Your task to perform on an android device: Go to location settings Image 0: 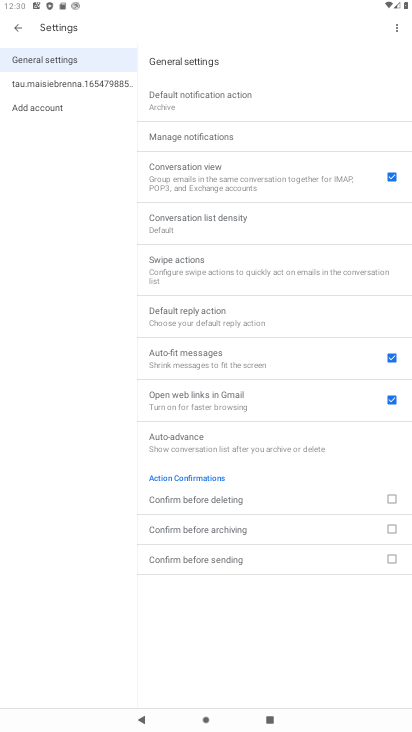
Step 0: press home button
Your task to perform on an android device: Go to location settings Image 1: 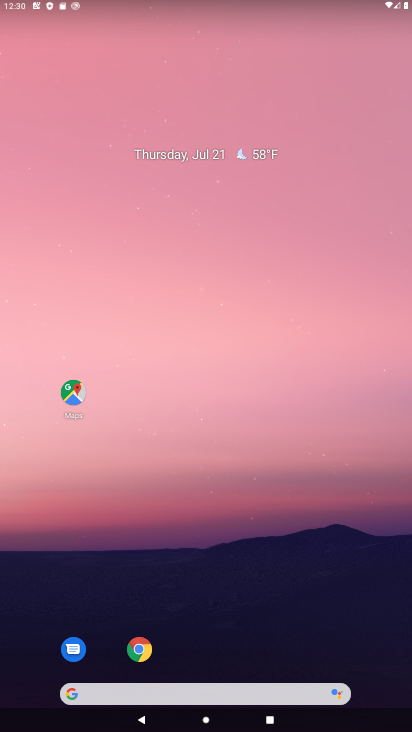
Step 1: drag from (372, 647) to (338, 139)
Your task to perform on an android device: Go to location settings Image 2: 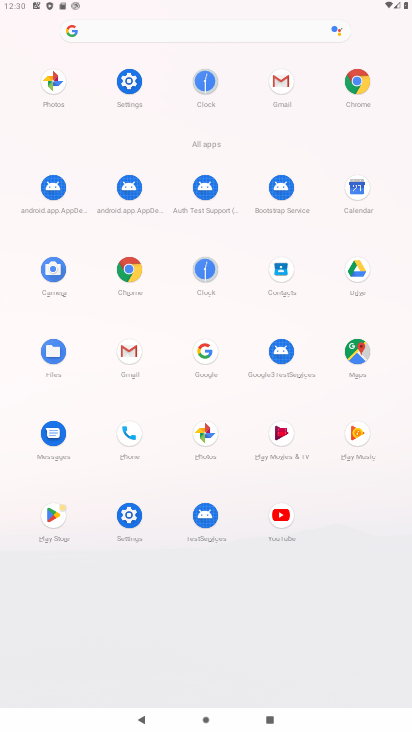
Step 2: click (127, 515)
Your task to perform on an android device: Go to location settings Image 3: 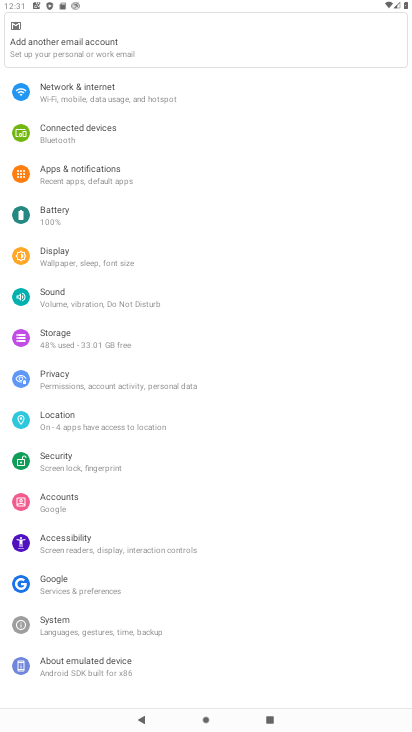
Step 3: click (49, 423)
Your task to perform on an android device: Go to location settings Image 4: 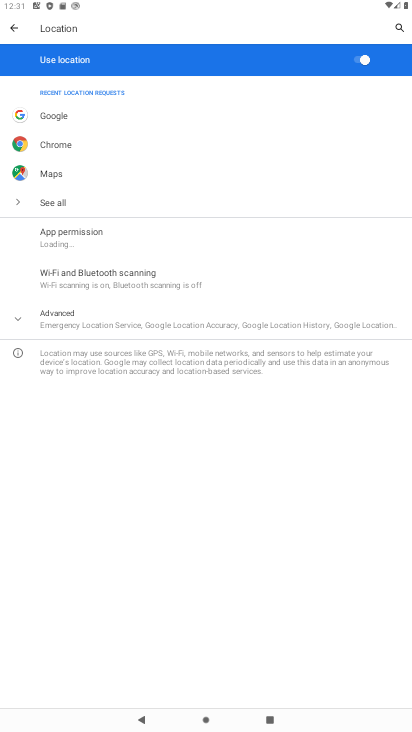
Step 4: click (16, 319)
Your task to perform on an android device: Go to location settings Image 5: 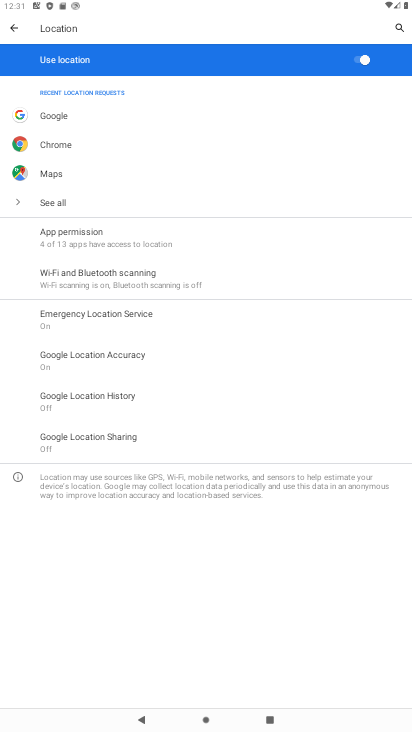
Step 5: task complete